Your task to perform on an android device: Do I have any events this weekend? Image 0: 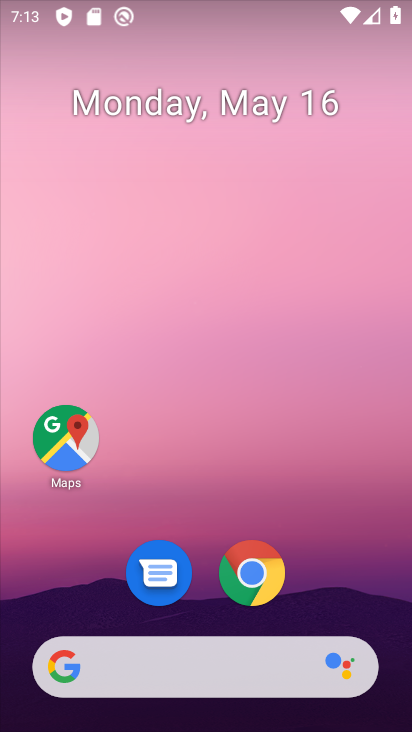
Step 0: drag from (406, 534) to (410, 52)
Your task to perform on an android device: Do I have any events this weekend? Image 1: 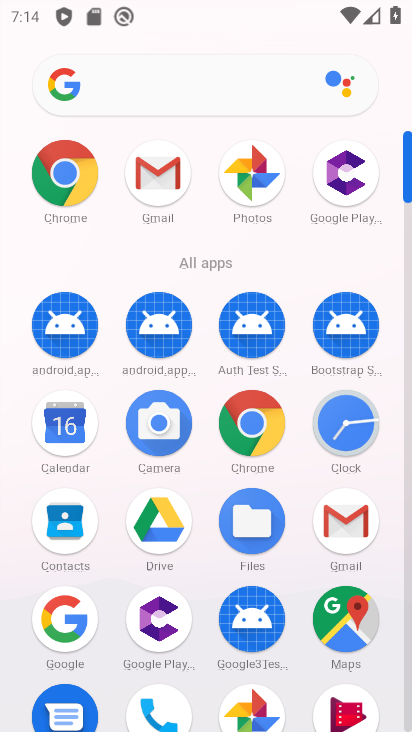
Step 1: click (65, 425)
Your task to perform on an android device: Do I have any events this weekend? Image 2: 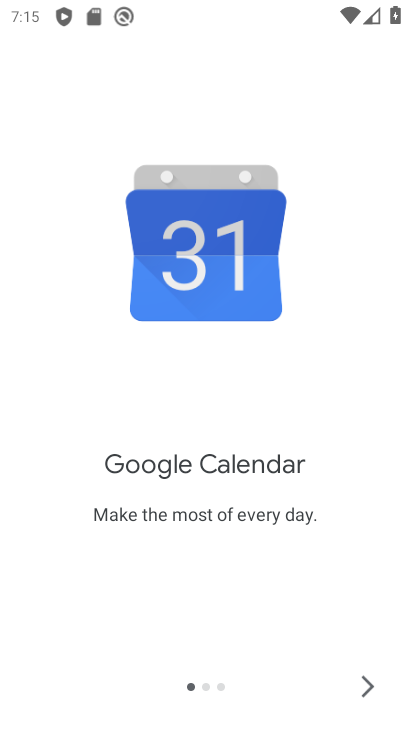
Step 2: click (370, 687)
Your task to perform on an android device: Do I have any events this weekend? Image 3: 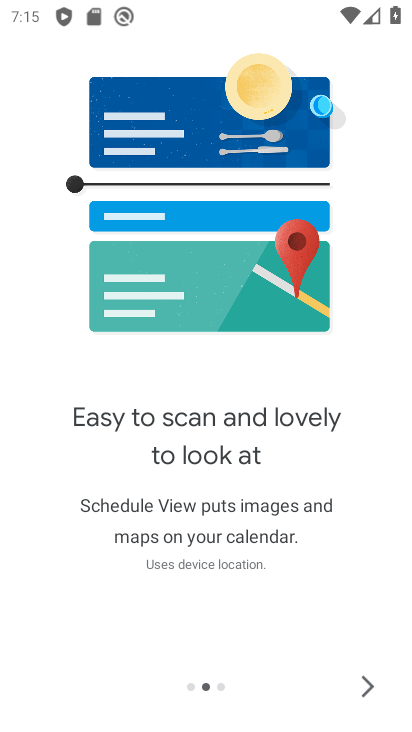
Step 3: click (366, 699)
Your task to perform on an android device: Do I have any events this weekend? Image 4: 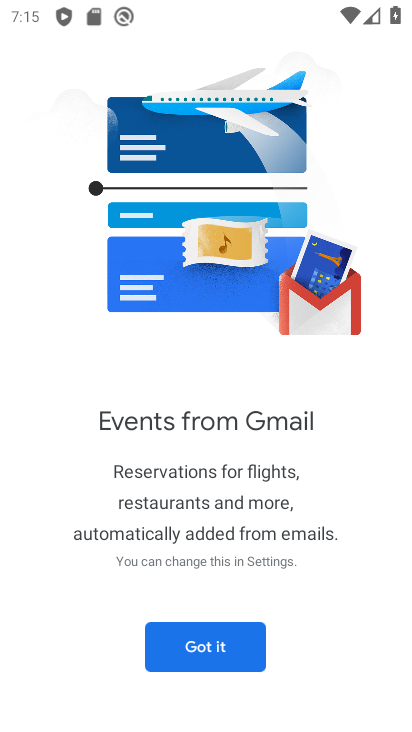
Step 4: click (223, 634)
Your task to perform on an android device: Do I have any events this weekend? Image 5: 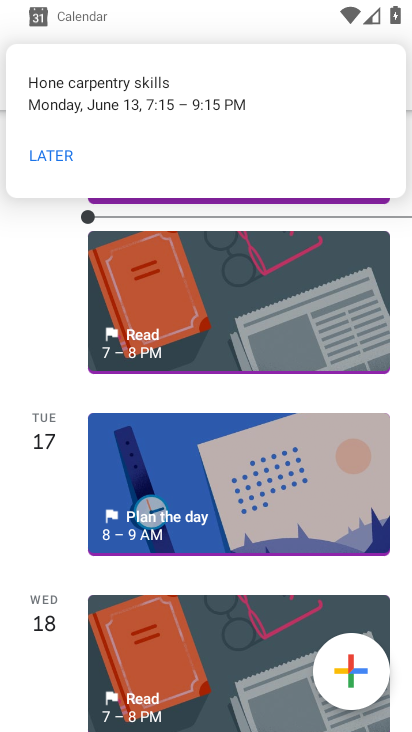
Step 5: drag from (38, 92) to (411, 141)
Your task to perform on an android device: Do I have any events this weekend? Image 6: 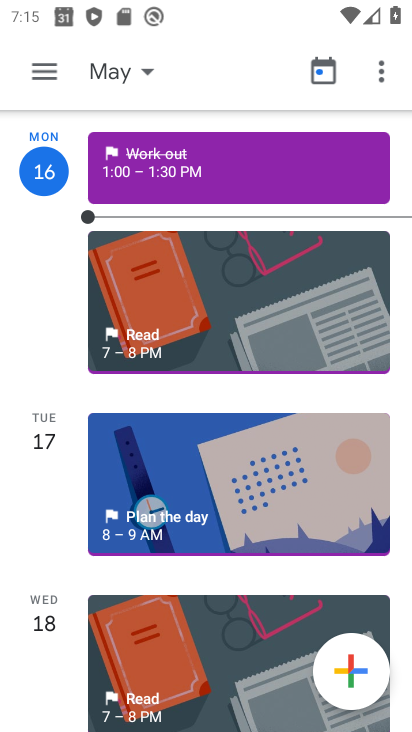
Step 6: click (119, 72)
Your task to perform on an android device: Do I have any events this weekend? Image 7: 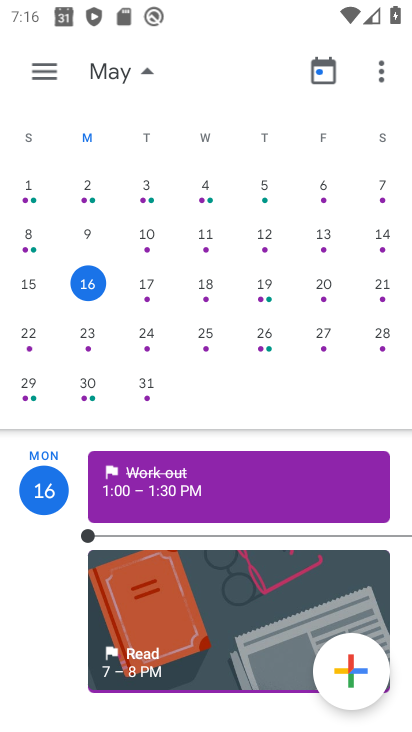
Step 7: task complete